Your task to perform on an android device: Open Wikipedia Image 0: 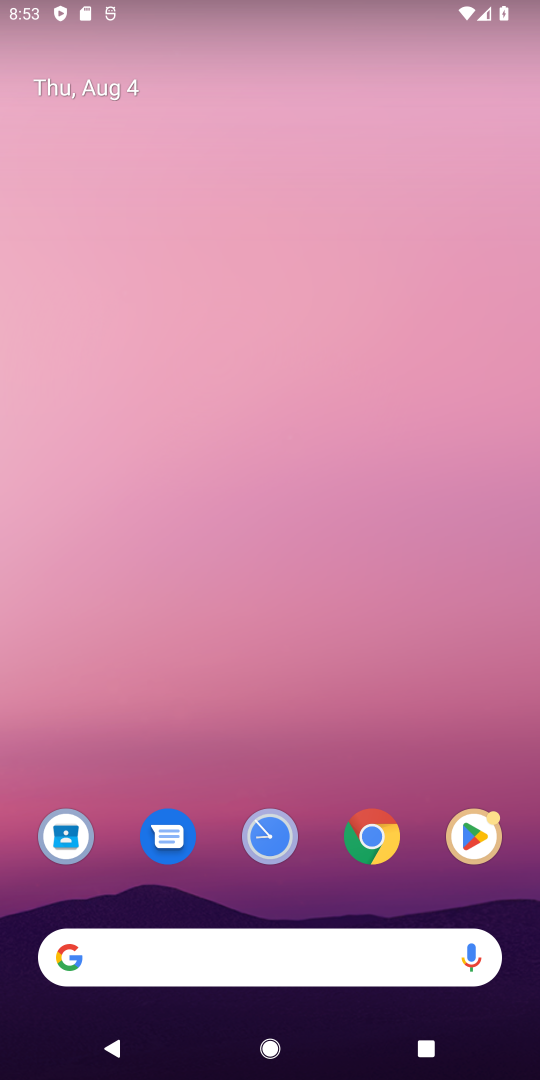
Step 0: click (375, 833)
Your task to perform on an android device: Open Wikipedia Image 1: 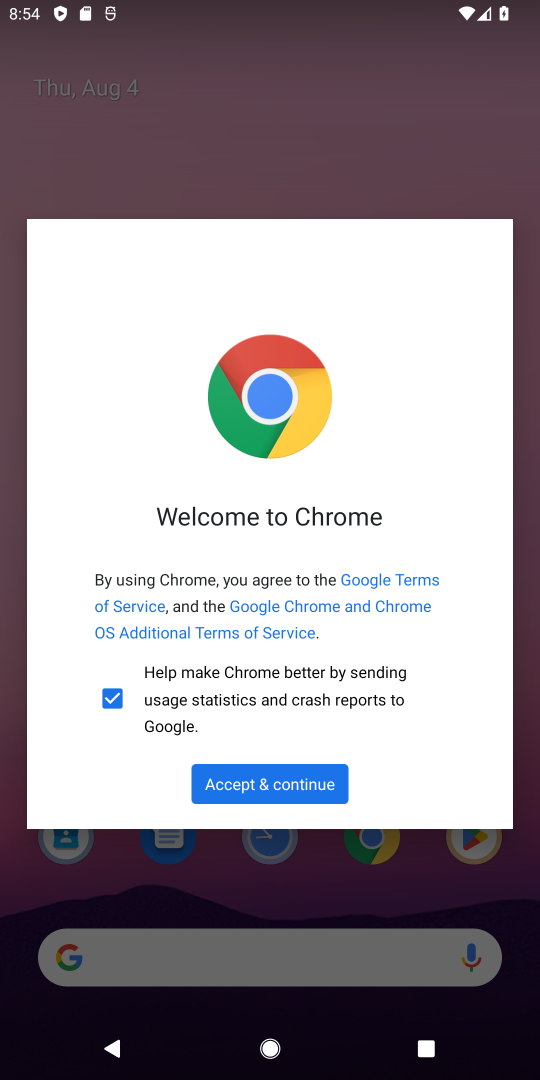
Step 1: click (267, 775)
Your task to perform on an android device: Open Wikipedia Image 2: 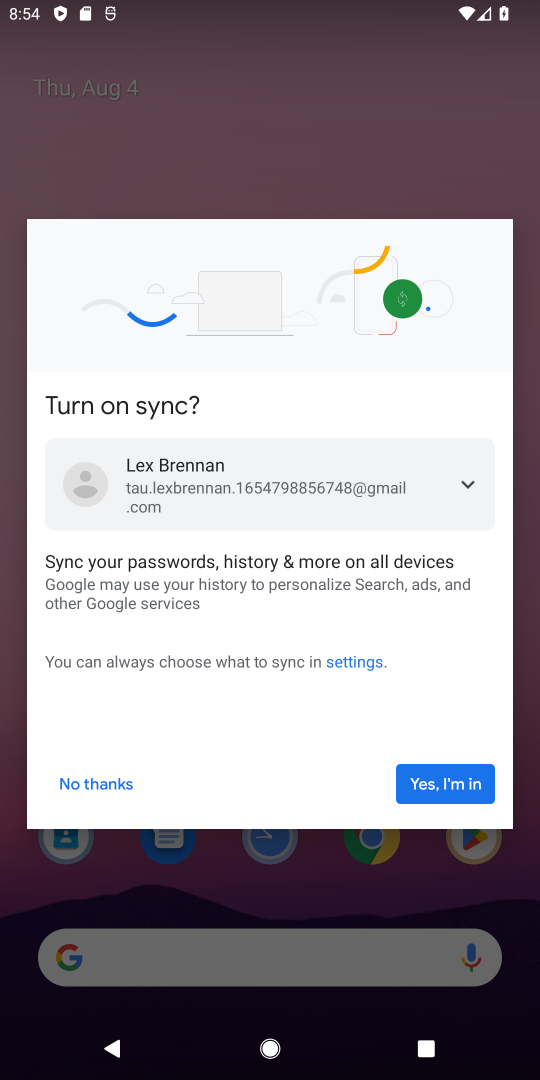
Step 2: click (446, 790)
Your task to perform on an android device: Open Wikipedia Image 3: 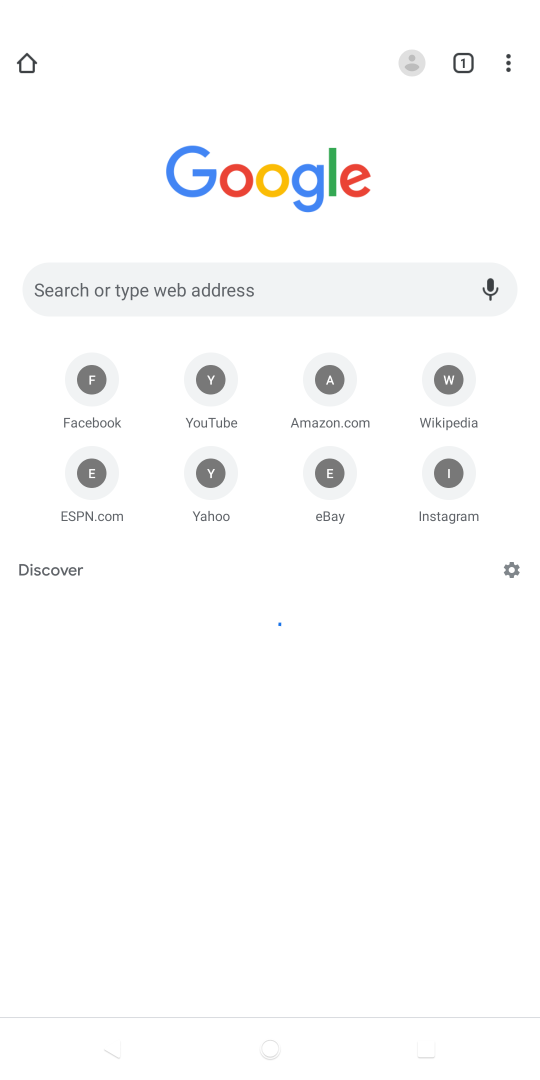
Step 3: click (414, 783)
Your task to perform on an android device: Open Wikipedia Image 4: 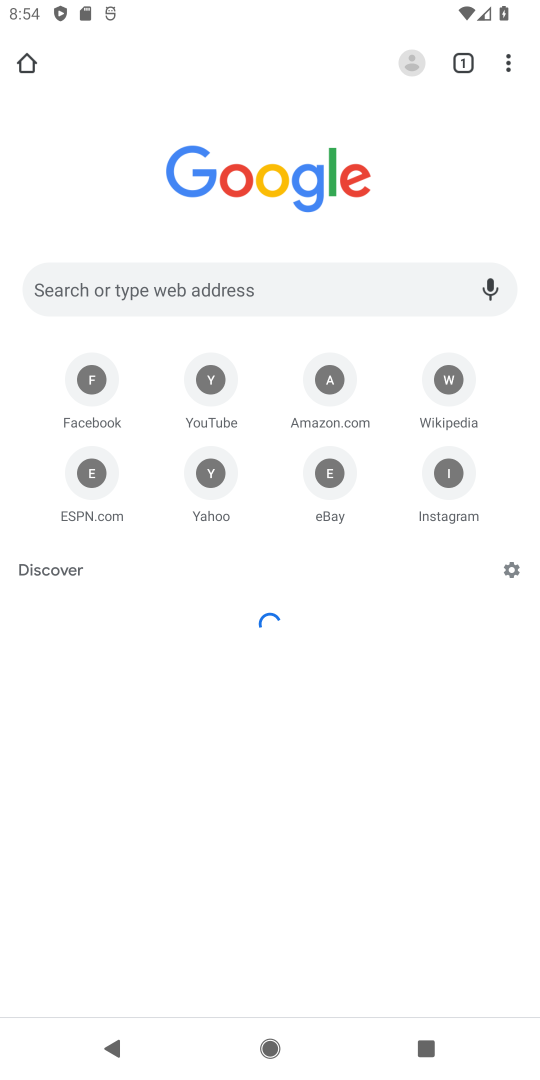
Step 4: click (435, 394)
Your task to perform on an android device: Open Wikipedia Image 5: 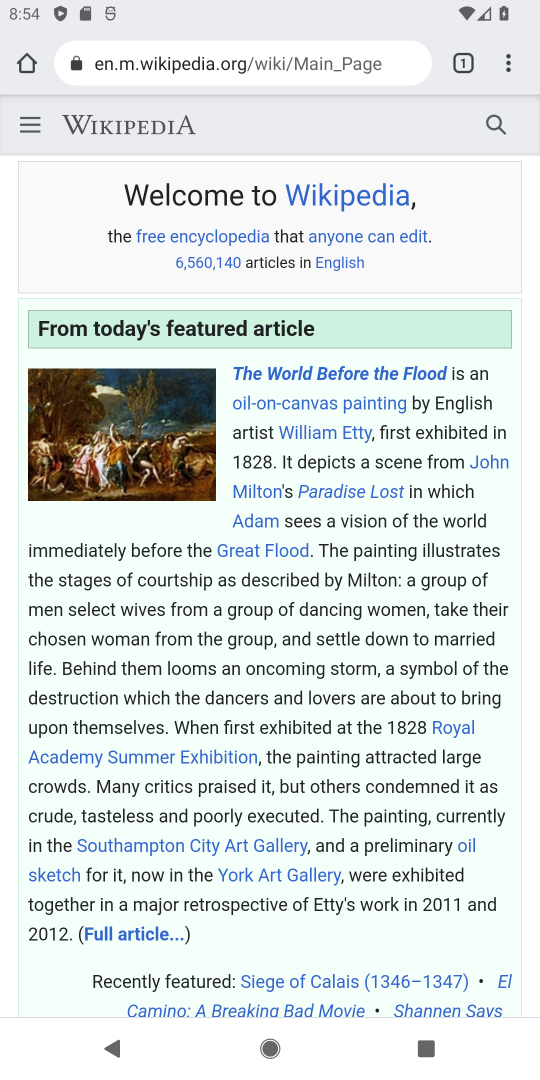
Step 5: task complete